Your task to perform on an android device: move an email to a new category in the gmail app Image 0: 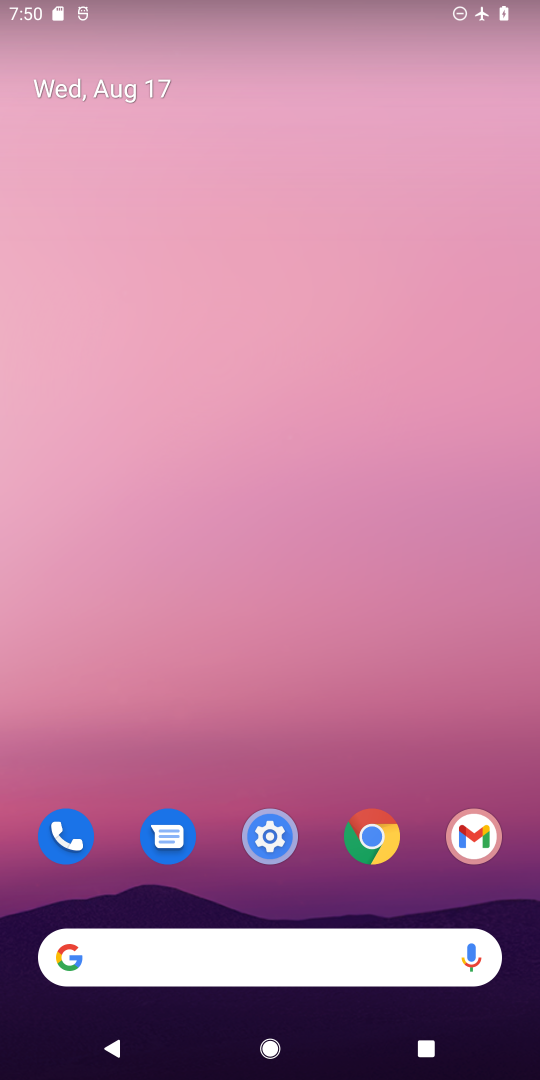
Step 0: drag from (224, 725) to (207, 293)
Your task to perform on an android device: move an email to a new category in the gmail app Image 1: 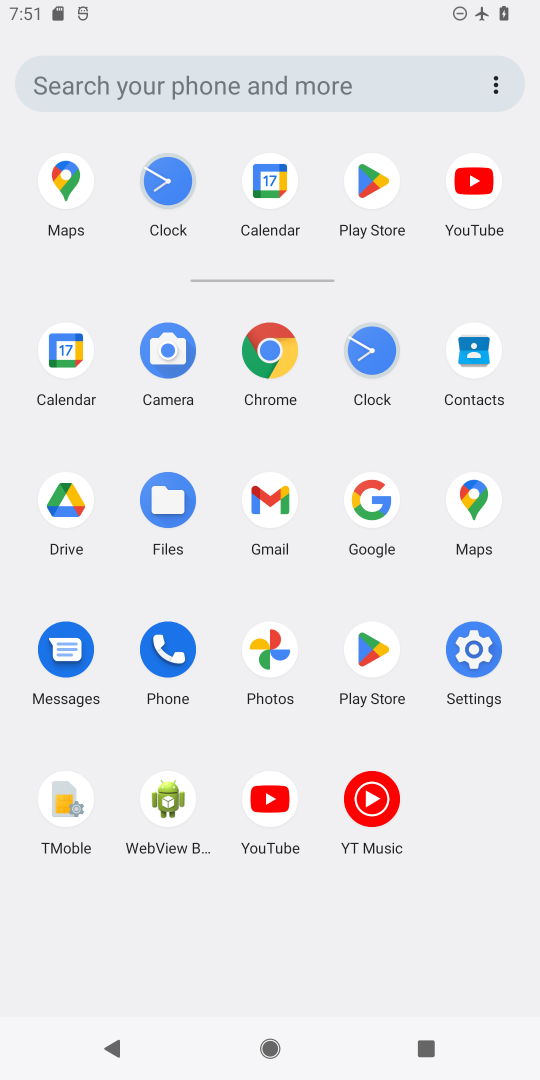
Step 1: click (259, 508)
Your task to perform on an android device: move an email to a new category in the gmail app Image 2: 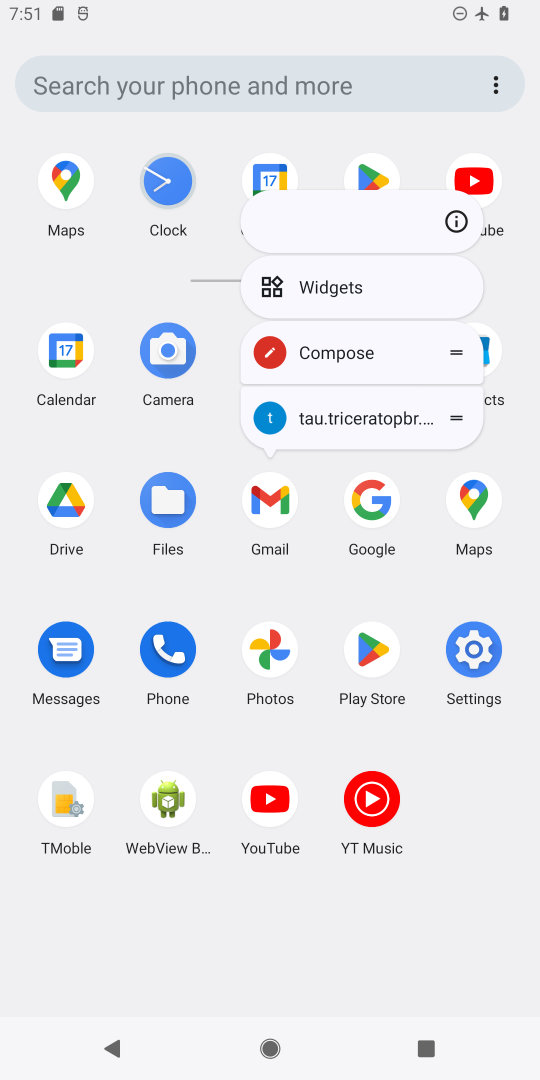
Step 2: click (259, 508)
Your task to perform on an android device: move an email to a new category in the gmail app Image 3: 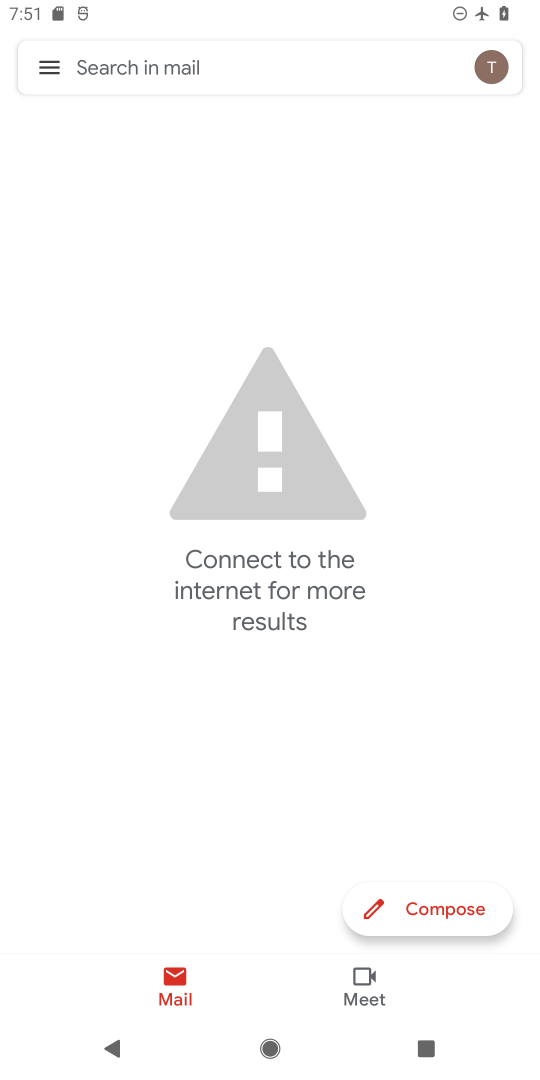
Step 3: click (39, 45)
Your task to perform on an android device: move an email to a new category in the gmail app Image 4: 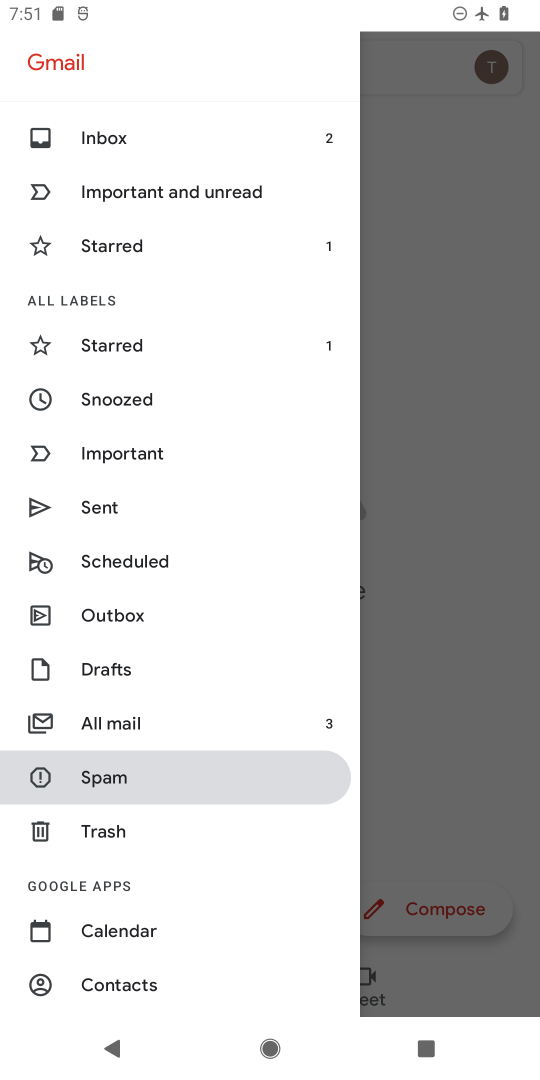
Step 4: click (164, 704)
Your task to perform on an android device: move an email to a new category in the gmail app Image 5: 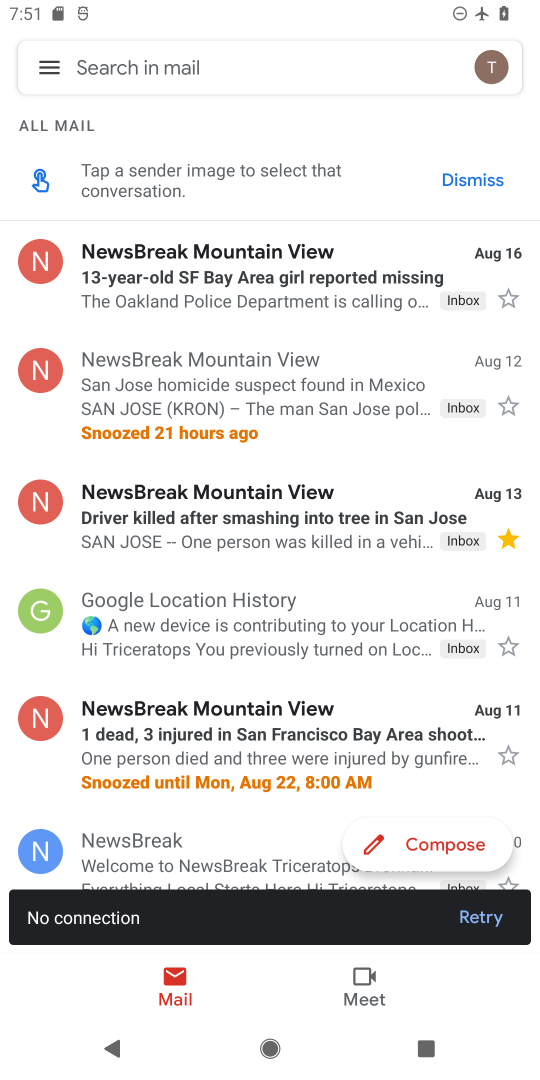
Step 5: click (189, 266)
Your task to perform on an android device: move an email to a new category in the gmail app Image 6: 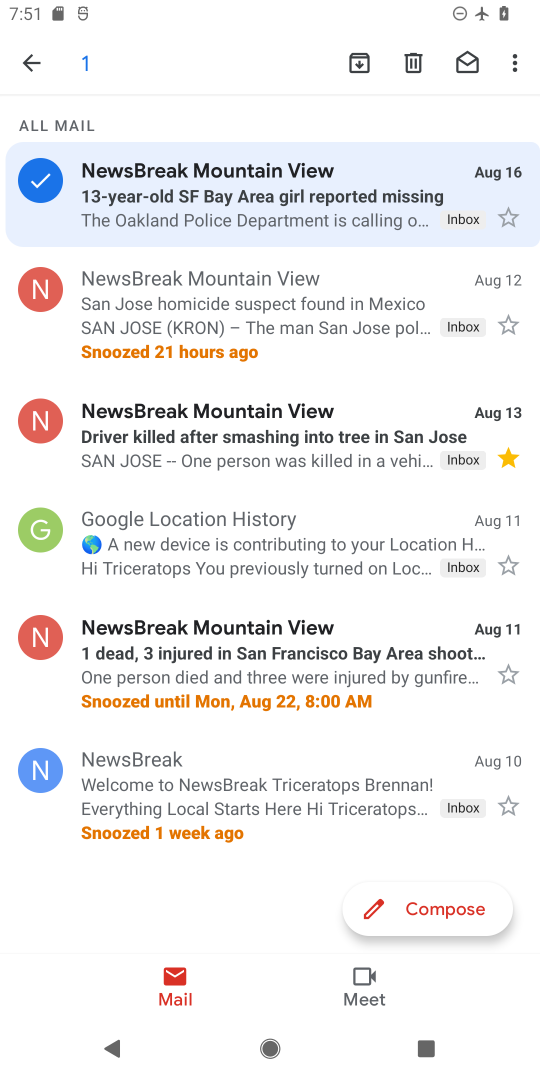
Step 6: click (520, 52)
Your task to perform on an android device: move an email to a new category in the gmail app Image 7: 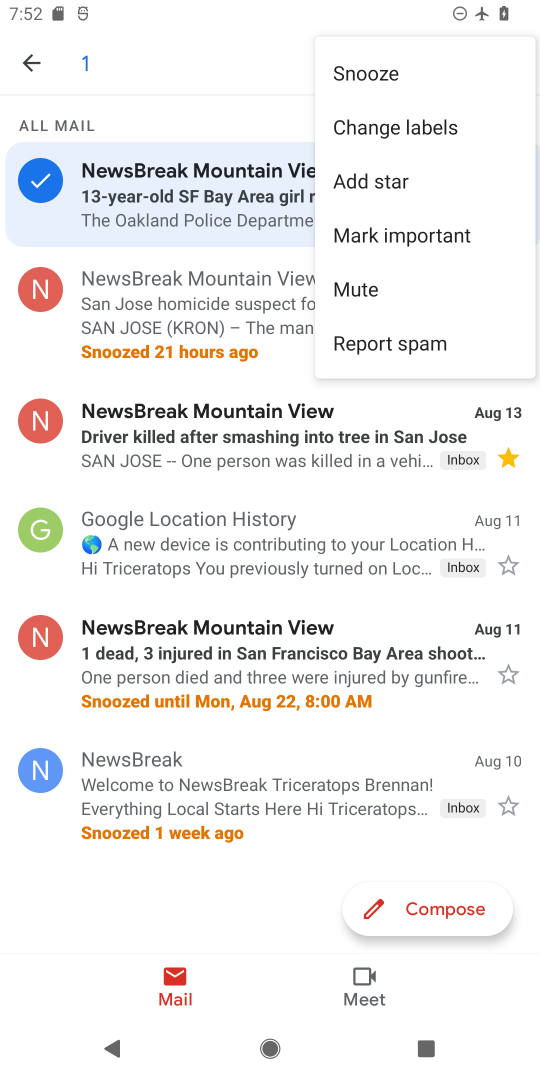
Step 7: task complete